Your task to perform on an android device: check out phone information Image 0: 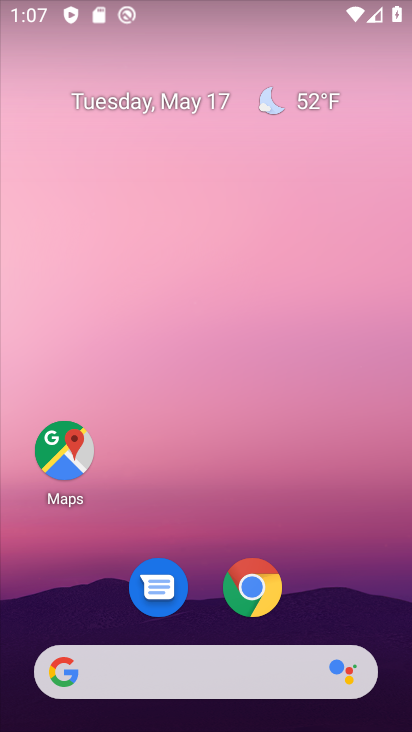
Step 0: drag from (375, 579) to (361, 91)
Your task to perform on an android device: check out phone information Image 1: 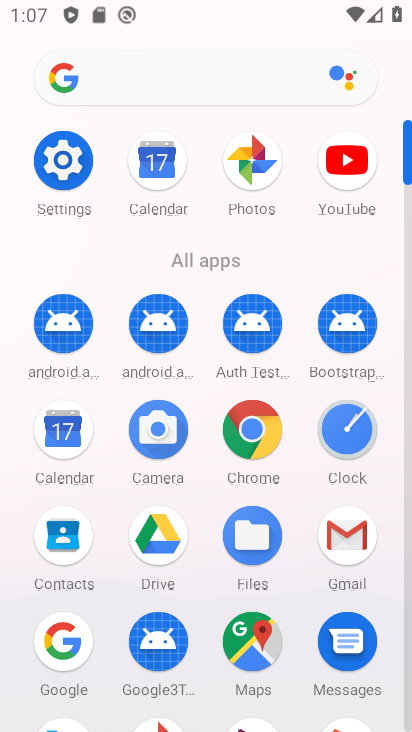
Step 1: click (73, 175)
Your task to perform on an android device: check out phone information Image 2: 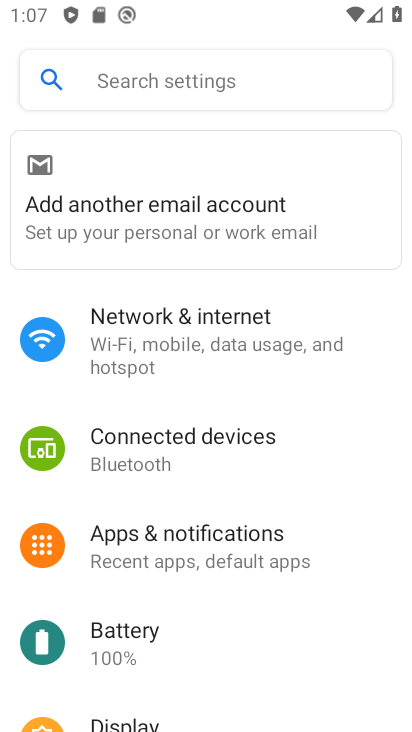
Step 2: task complete